Your task to perform on an android device: turn on showing notifications on the lock screen Image 0: 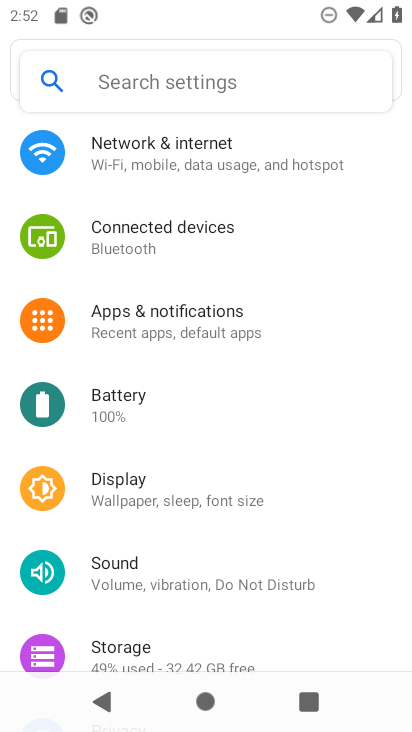
Step 0: press home button
Your task to perform on an android device: turn on showing notifications on the lock screen Image 1: 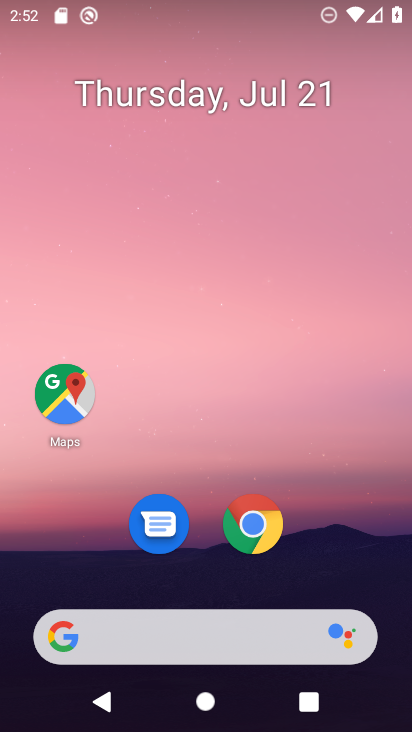
Step 1: drag from (213, 606) to (243, 49)
Your task to perform on an android device: turn on showing notifications on the lock screen Image 2: 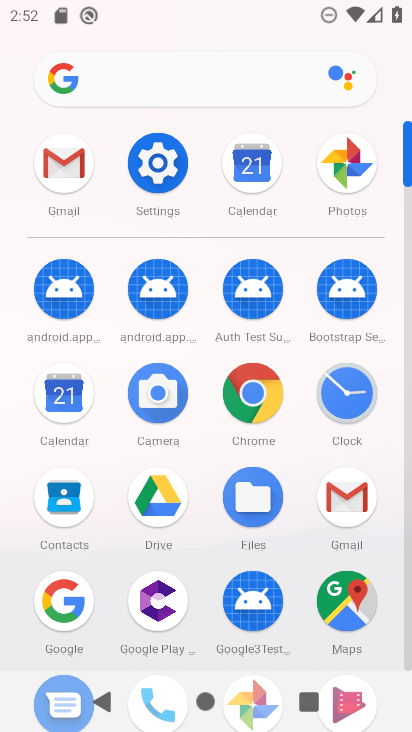
Step 2: click (157, 164)
Your task to perform on an android device: turn on showing notifications on the lock screen Image 3: 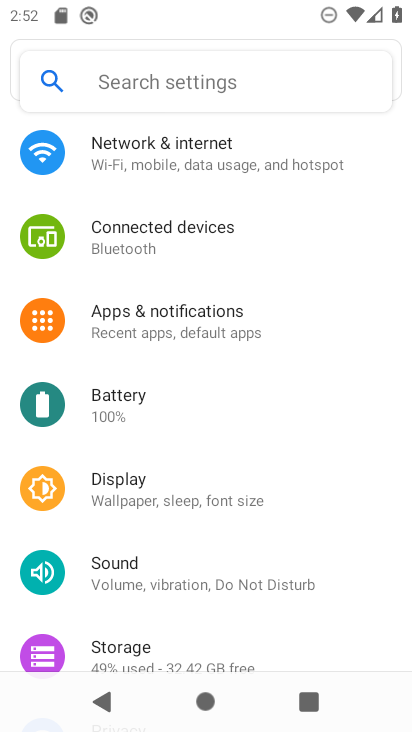
Step 3: click (181, 318)
Your task to perform on an android device: turn on showing notifications on the lock screen Image 4: 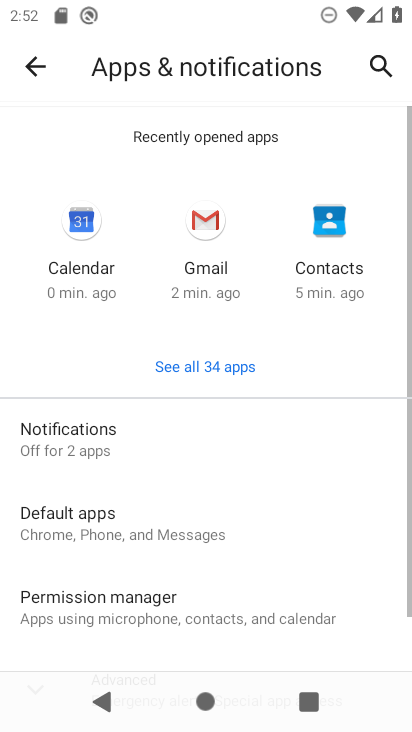
Step 4: click (117, 435)
Your task to perform on an android device: turn on showing notifications on the lock screen Image 5: 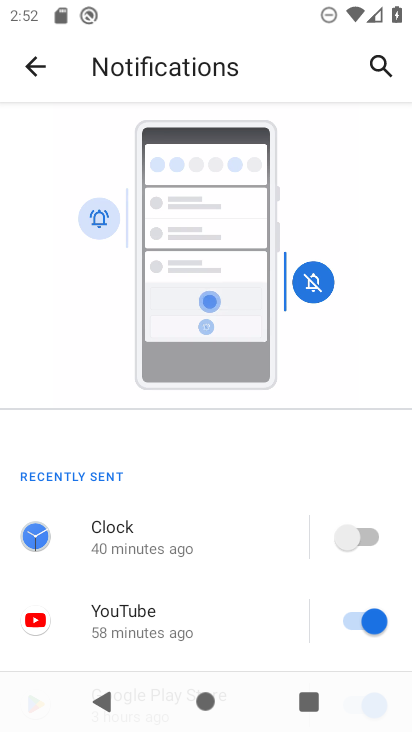
Step 5: drag from (217, 618) to (269, 137)
Your task to perform on an android device: turn on showing notifications on the lock screen Image 6: 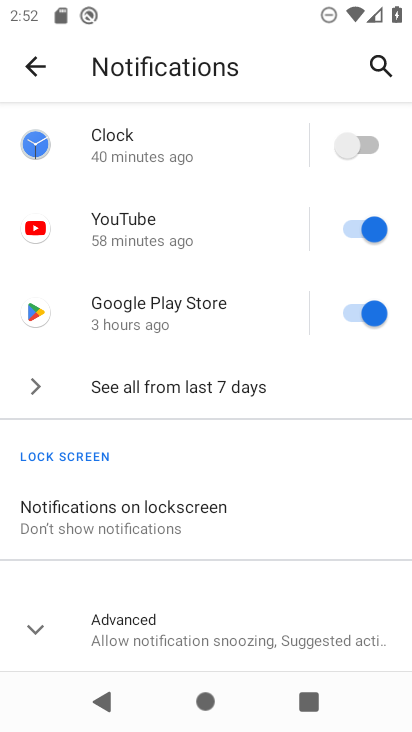
Step 6: click (120, 515)
Your task to perform on an android device: turn on showing notifications on the lock screen Image 7: 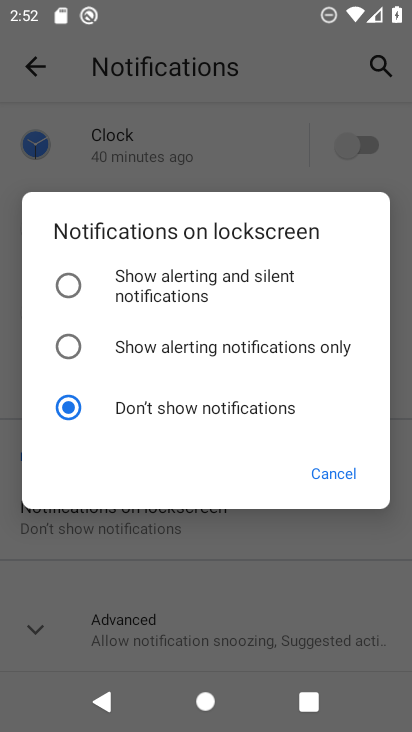
Step 7: click (73, 282)
Your task to perform on an android device: turn on showing notifications on the lock screen Image 8: 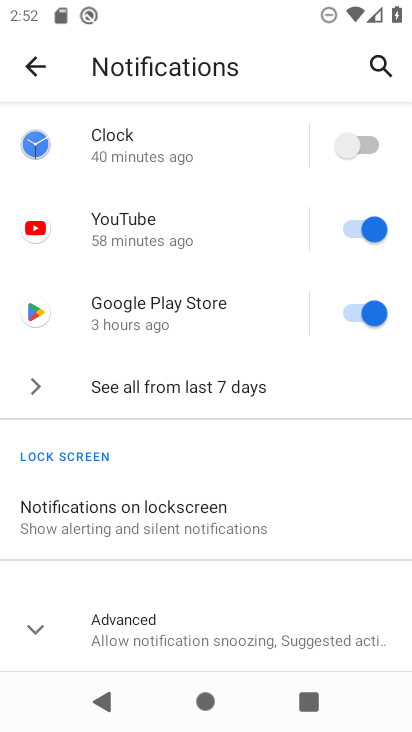
Step 8: task complete